Your task to perform on an android device: toggle sleep mode Image 0: 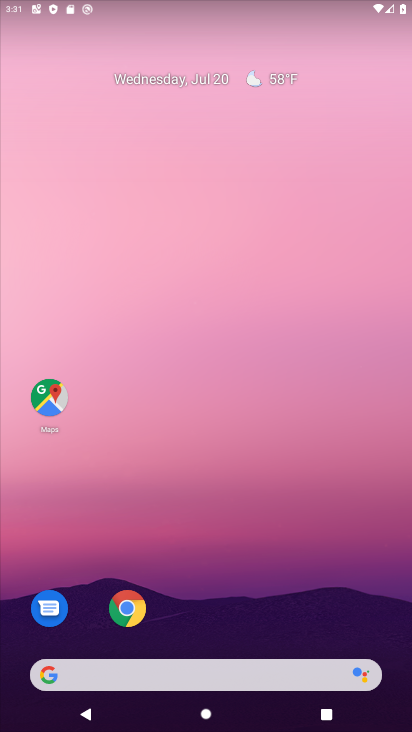
Step 0: drag from (258, 626) to (241, 180)
Your task to perform on an android device: toggle sleep mode Image 1: 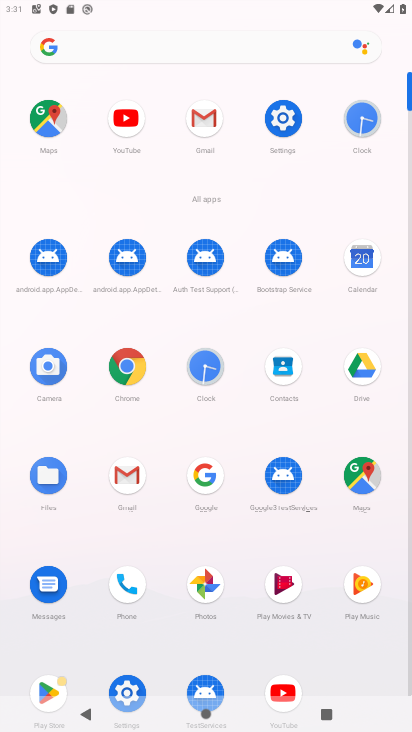
Step 1: click (260, 116)
Your task to perform on an android device: toggle sleep mode Image 2: 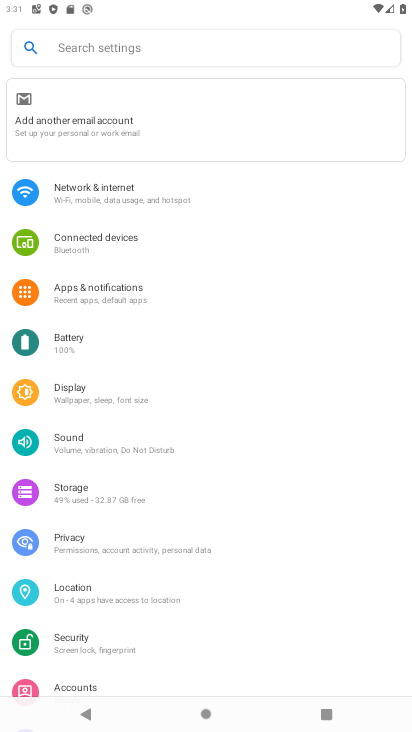
Step 2: task complete